Your task to perform on an android device: Go to display settings Image 0: 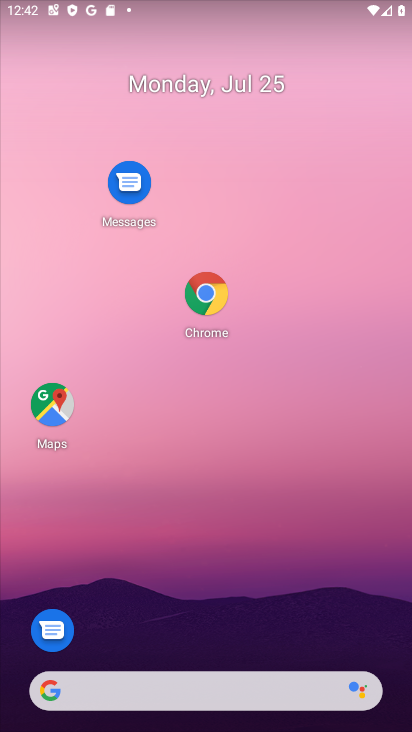
Step 0: drag from (308, 585) to (336, 189)
Your task to perform on an android device: Go to display settings Image 1: 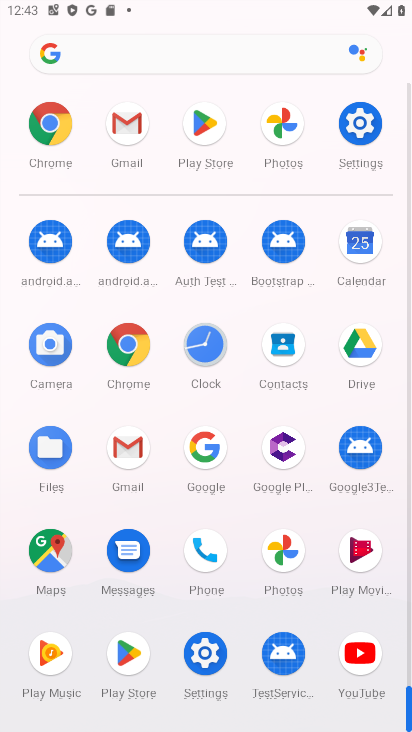
Step 1: click (188, 652)
Your task to perform on an android device: Go to display settings Image 2: 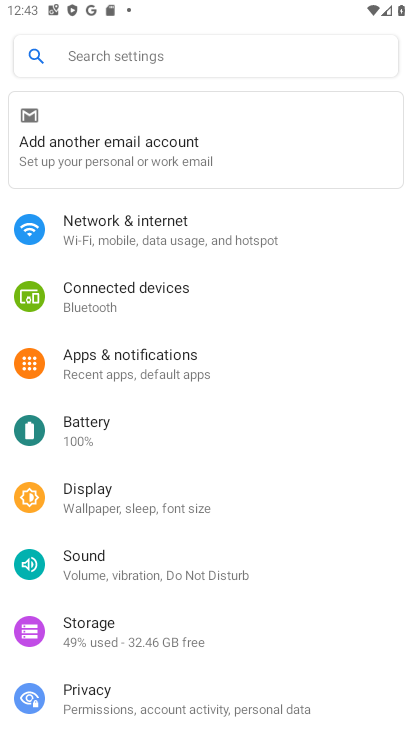
Step 2: click (103, 490)
Your task to perform on an android device: Go to display settings Image 3: 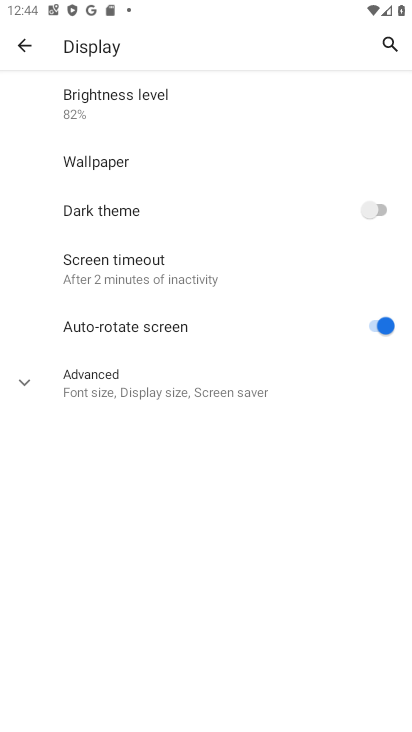
Step 3: task complete